Your task to perform on an android device: open app "Duolingo: language lessons" Image 0: 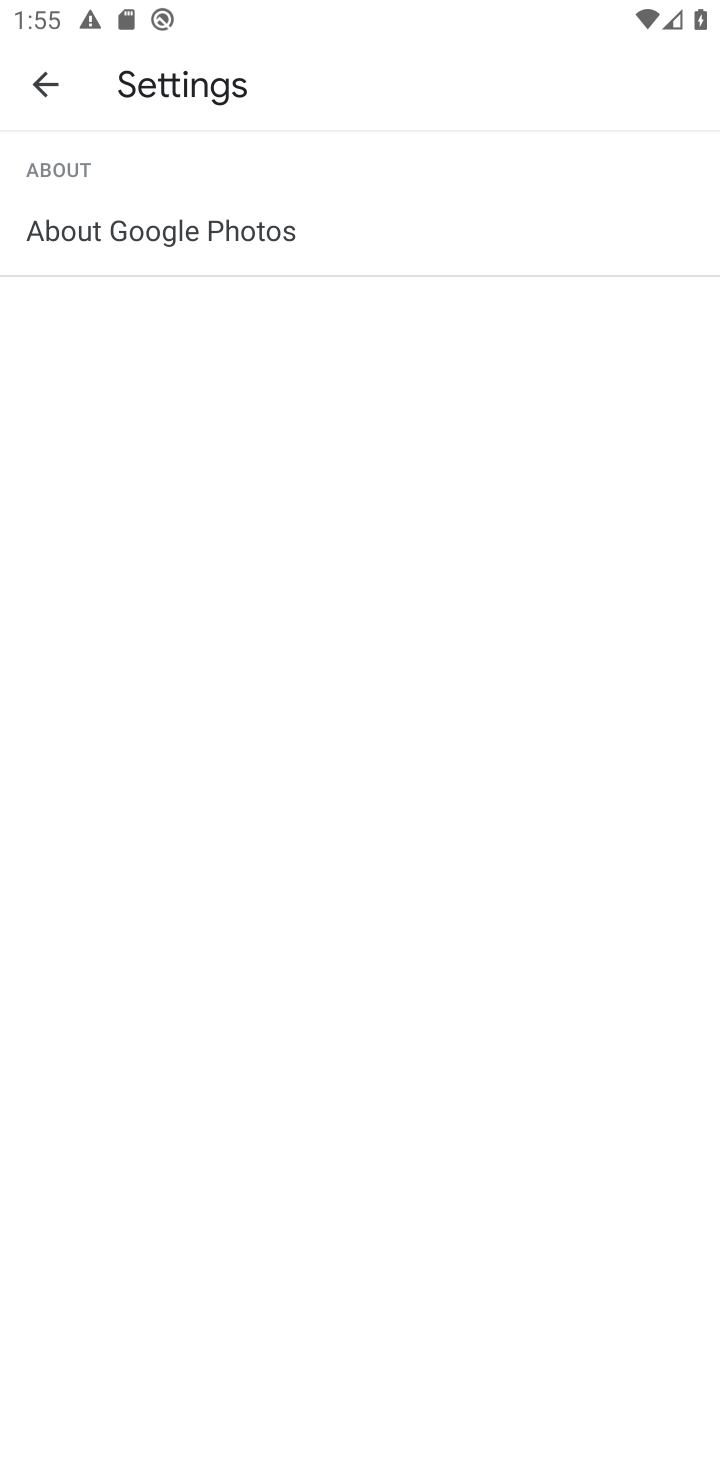
Step 0: click (41, 89)
Your task to perform on an android device: open app "Duolingo: language lessons" Image 1: 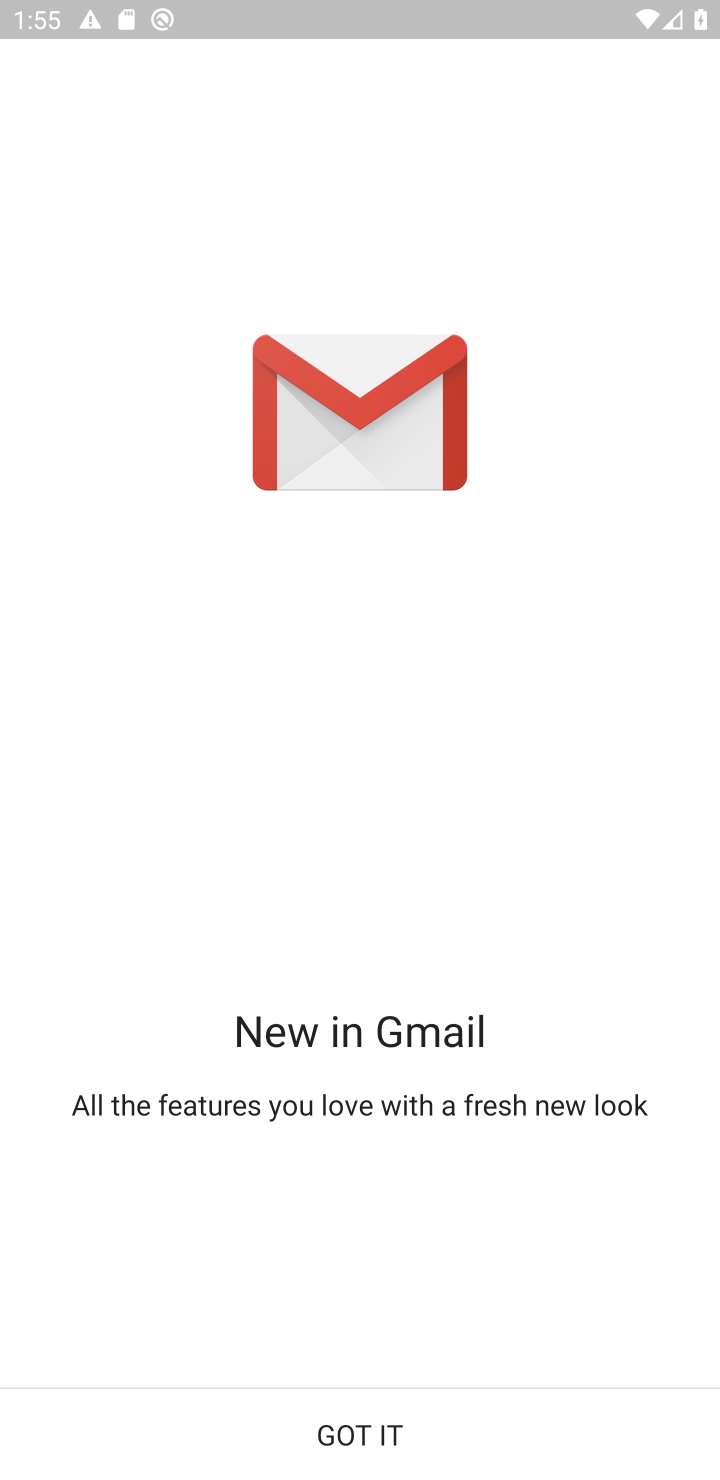
Step 1: press home button
Your task to perform on an android device: open app "Duolingo: language lessons" Image 2: 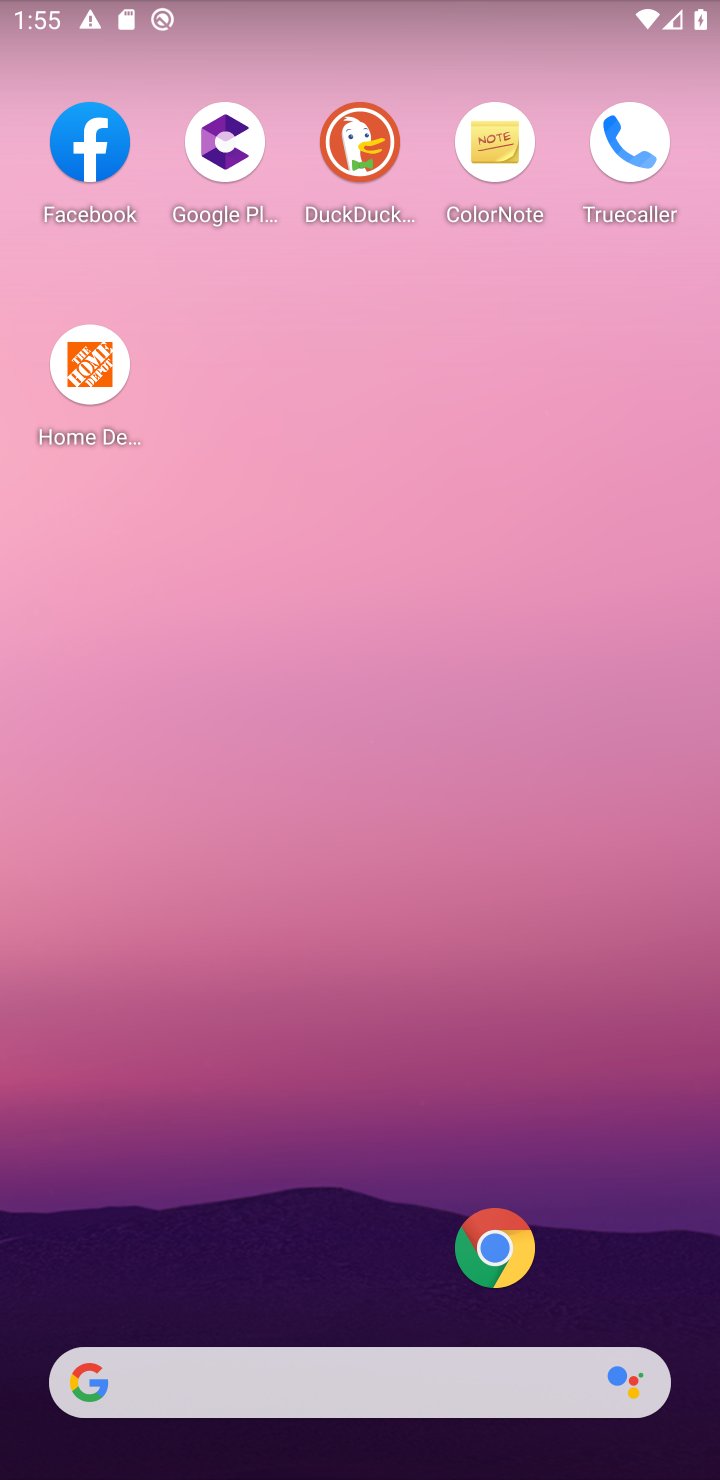
Step 2: drag from (178, 1291) to (193, 382)
Your task to perform on an android device: open app "Duolingo: language lessons" Image 3: 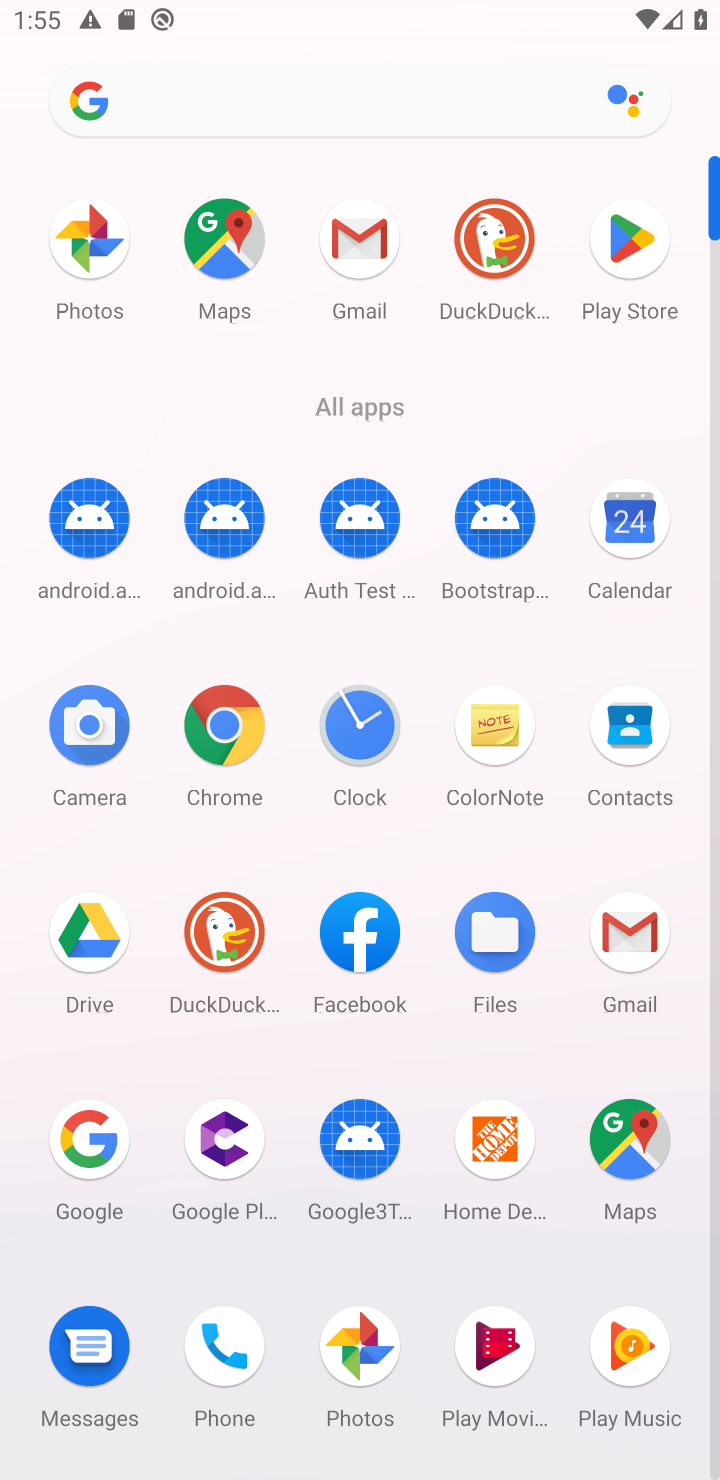
Step 3: click (611, 218)
Your task to perform on an android device: open app "Duolingo: language lessons" Image 4: 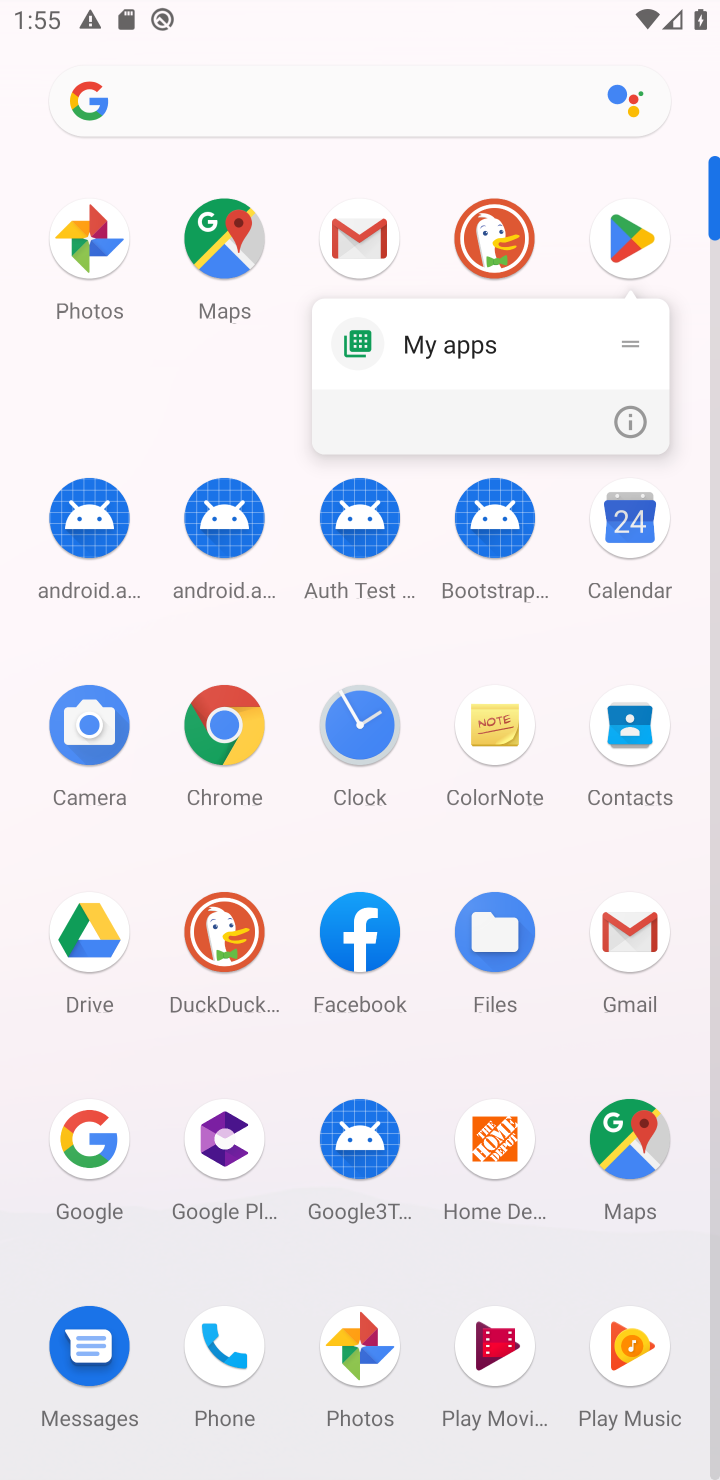
Step 4: click (615, 232)
Your task to perform on an android device: open app "Duolingo: language lessons" Image 5: 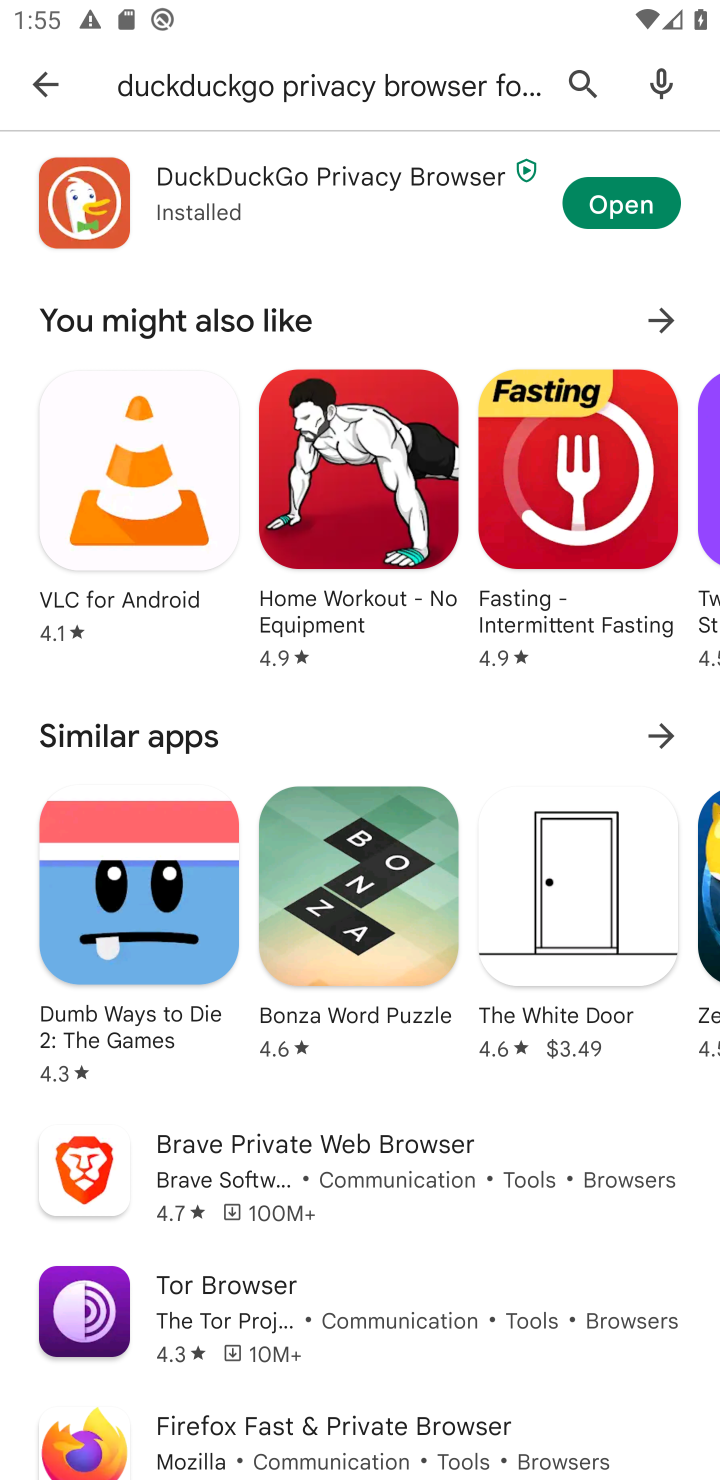
Step 5: click (42, 92)
Your task to perform on an android device: open app "Duolingo: language lessons" Image 6: 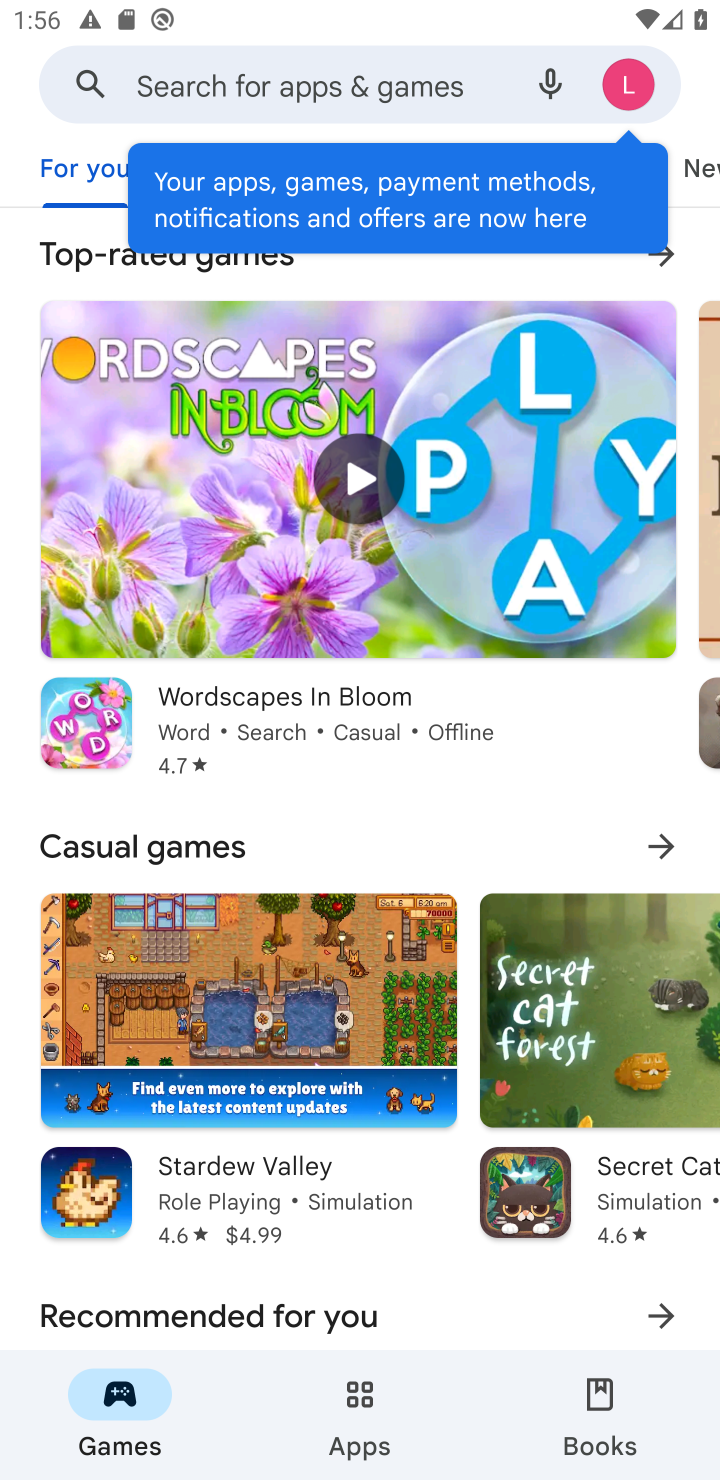
Step 6: click (302, 73)
Your task to perform on an android device: open app "Duolingo: language lessons" Image 7: 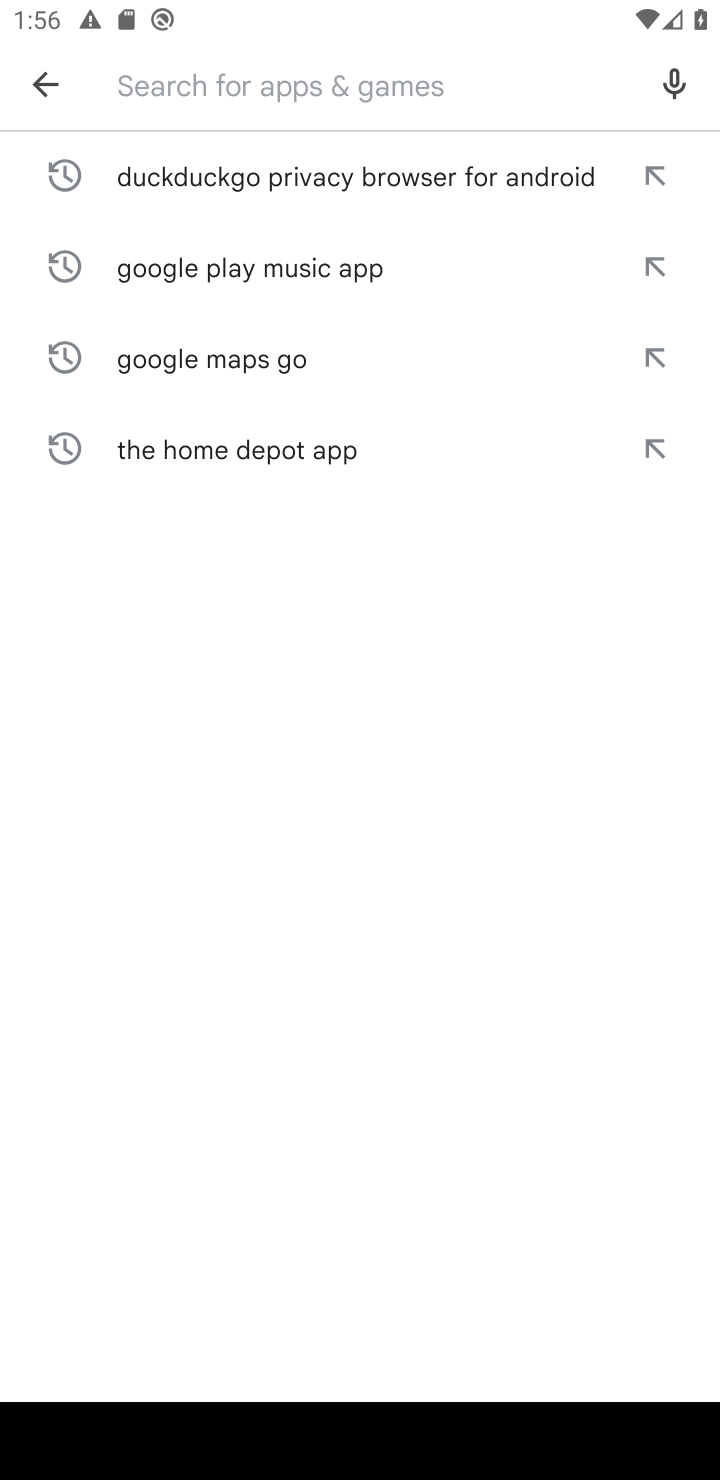
Step 7: type "Duolingo: language lessons "
Your task to perform on an android device: open app "Duolingo: language lessons" Image 8: 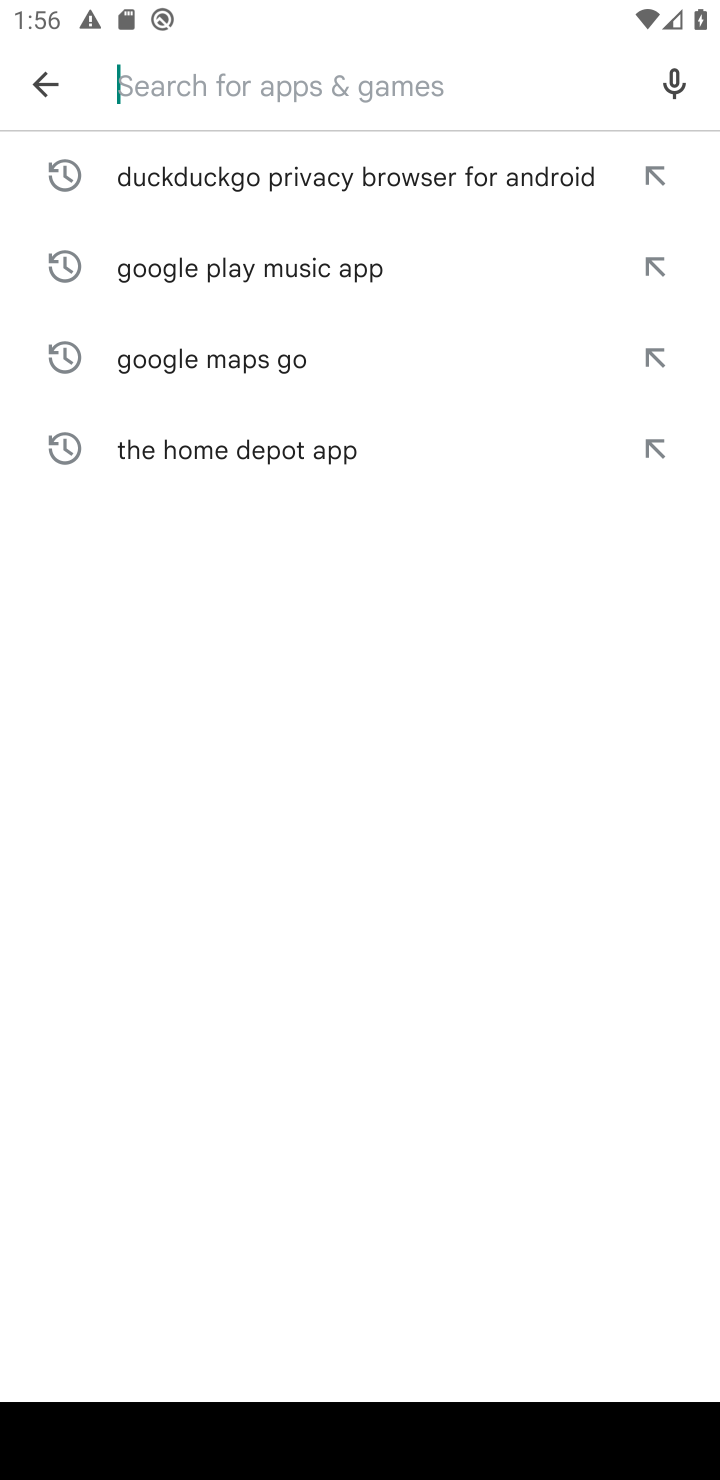
Step 8: click (386, 177)
Your task to perform on an android device: open app "Duolingo: language lessons" Image 9: 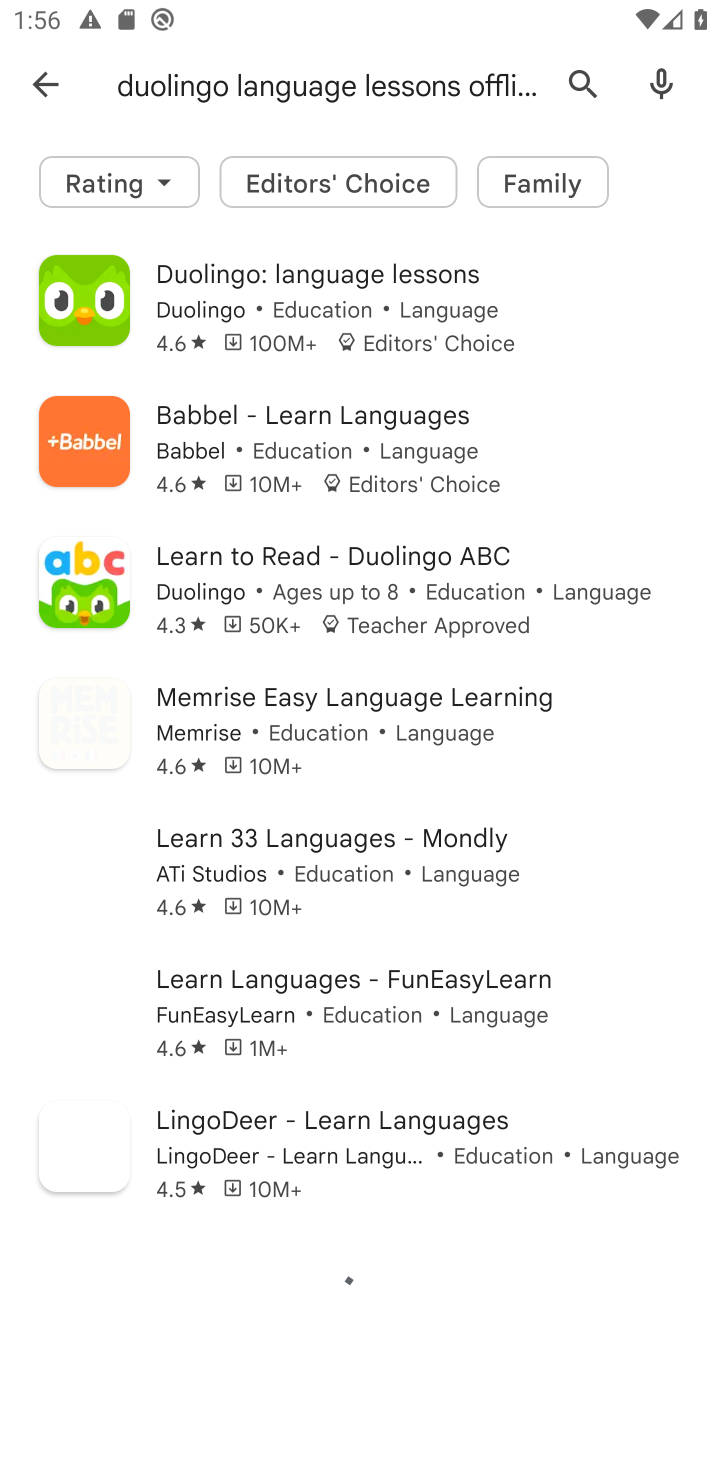
Step 9: click (270, 307)
Your task to perform on an android device: open app "Duolingo: language lessons" Image 10: 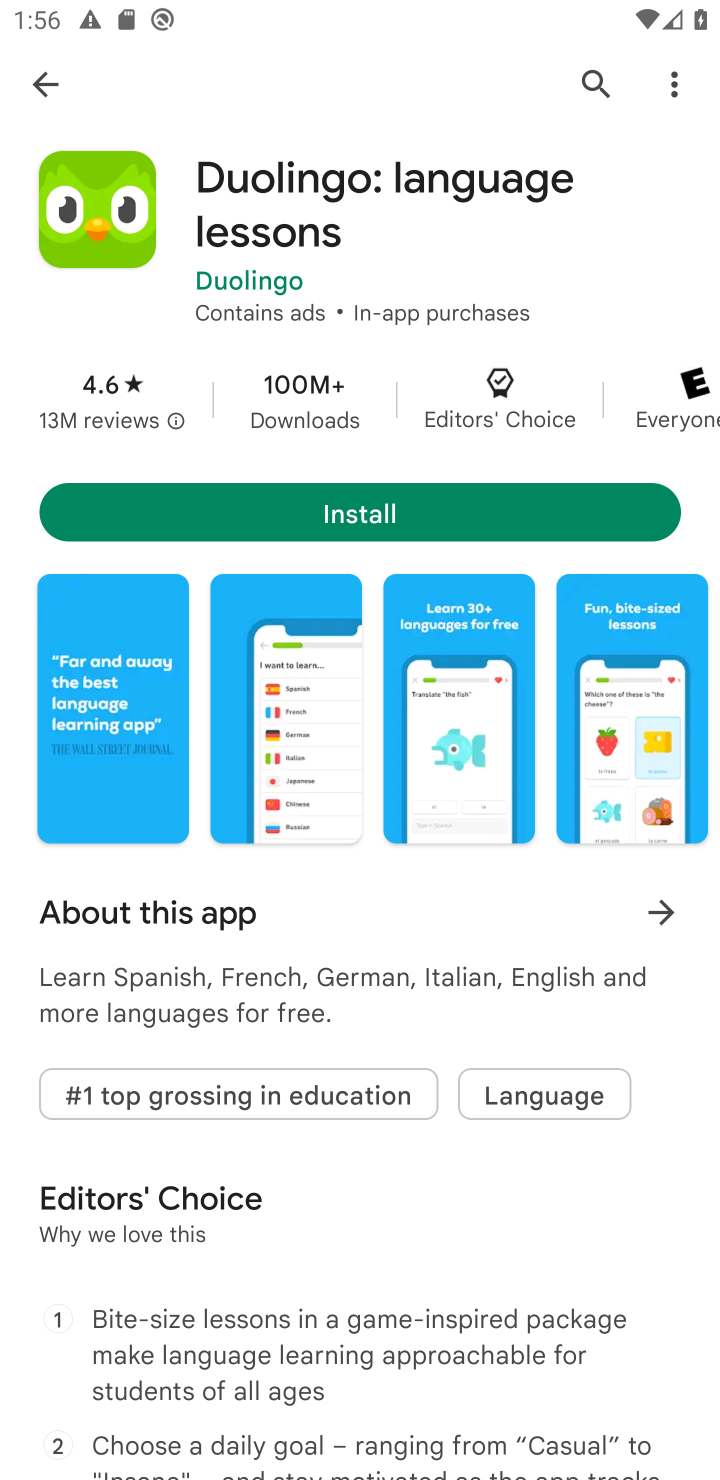
Step 10: click (441, 498)
Your task to perform on an android device: open app "Duolingo: language lessons" Image 11: 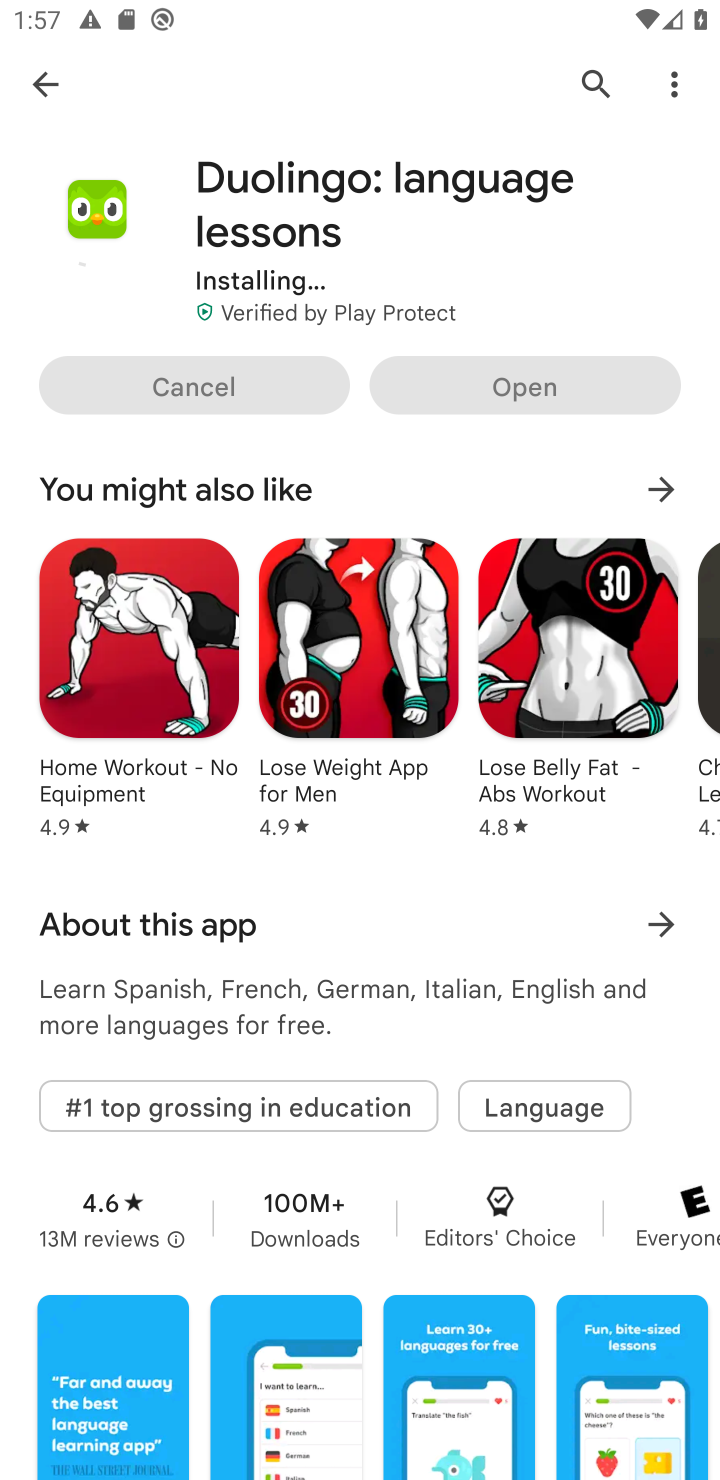
Step 11: task complete